Your task to perform on an android device: move a message to another label in the gmail app Image 0: 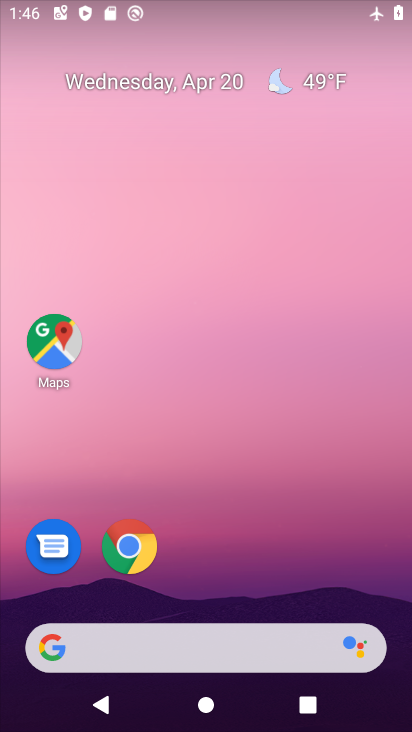
Step 0: drag from (272, 409) to (299, 246)
Your task to perform on an android device: move a message to another label in the gmail app Image 1: 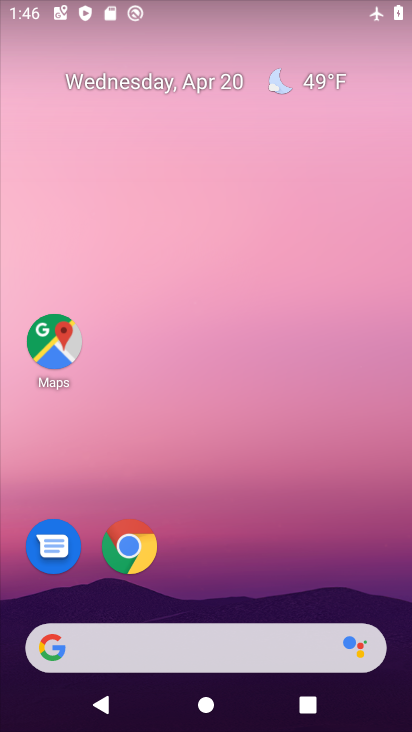
Step 1: drag from (244, 439) to (303, 165)
Your task to perform on an android device: move a message to another label in the gmail app Image 2: 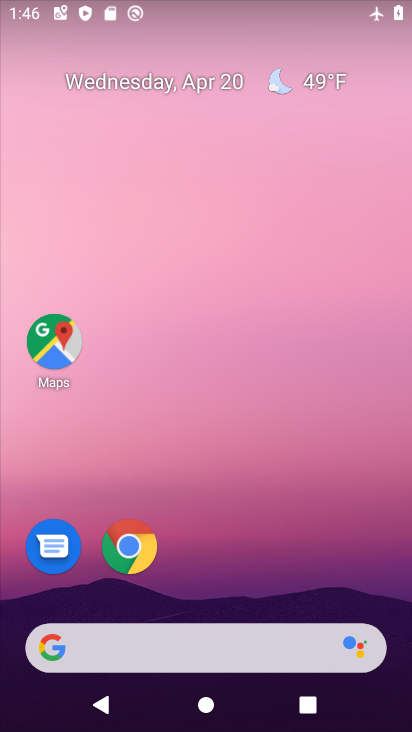
Step 2: drag from (206, 545) to (293, 156)
Your task to perform on an android device: move a message to another label in the gmail app Image 3: 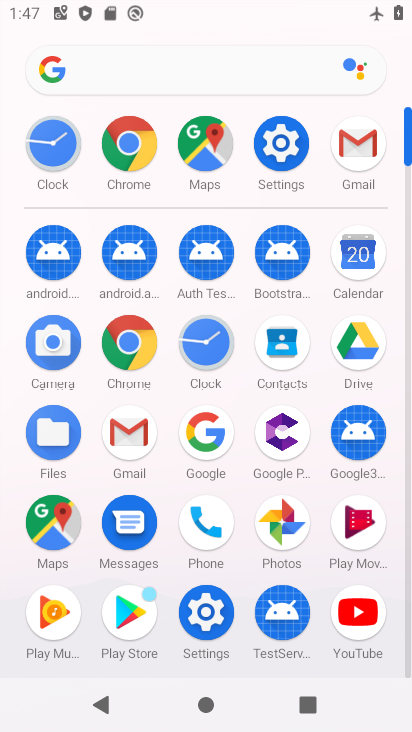
Step 3: click (350, 134)
Your task to perform on an android device: move a message to another label in the gmail app Image 4: 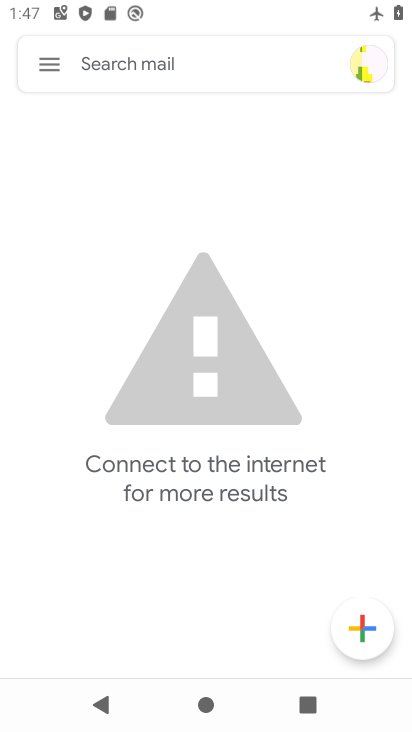
Step 4: click (49, 54)
Your task to perform on an android device: move a message to another label in the gmail app Image 5: 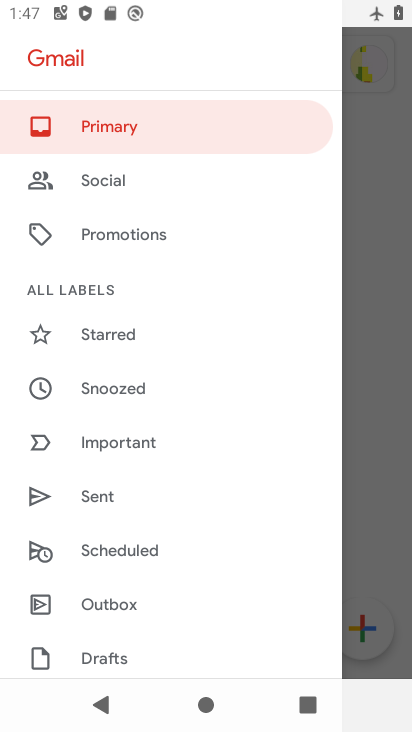
Step 5: drag from (191, 554) to (244, 163)
Your task to perform on an android device: move a message to another label in the gmail app Image 6: 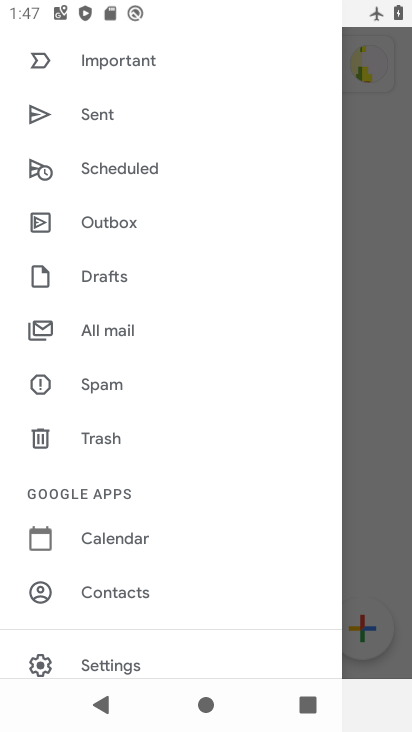
Step 6: click (133, 331)
Your task to perform on an android device: move a message to another label in the gmail app Image 7: 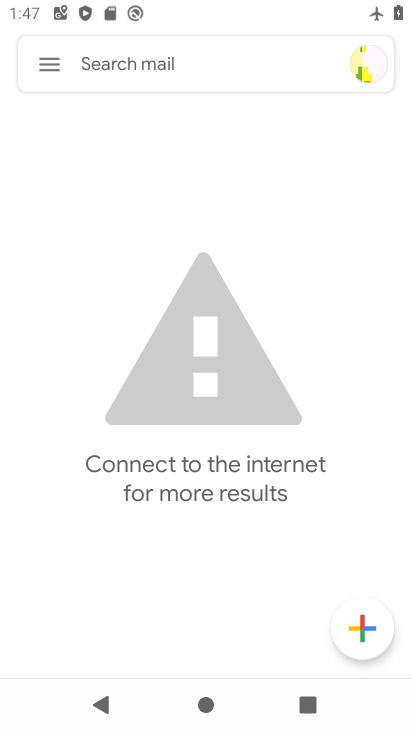
Step 7: task complete